Your task to perform on an android device: open chrome privacy settings Image 0: 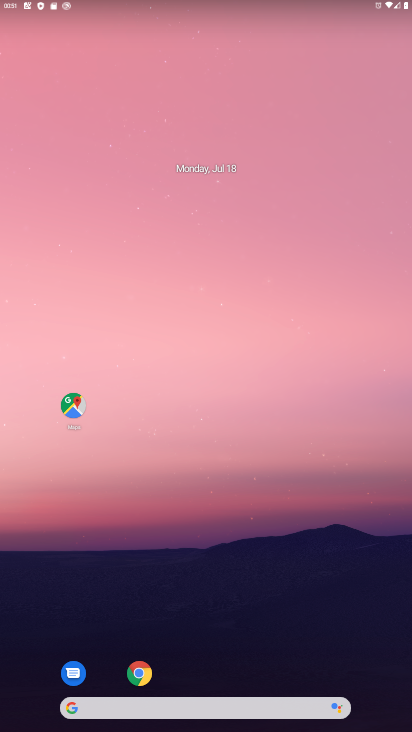
Step 0: click (149, 673)
Your task to perform on an android device: open chrome privacy settings Image 1: 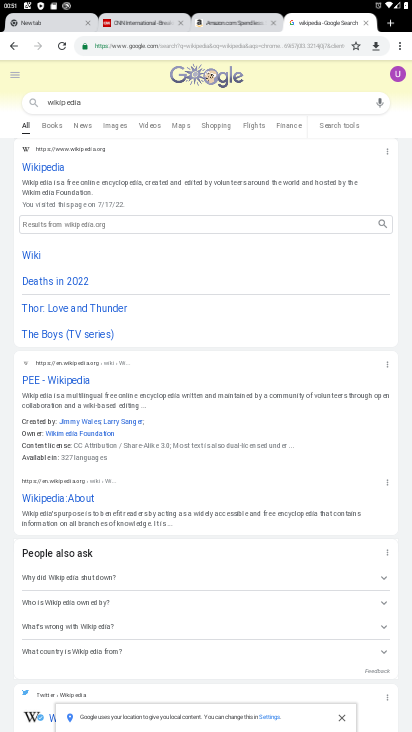
Step 1: click (400, 44)
Your task to perform on an android device: open chrome privacy settings Image 2: 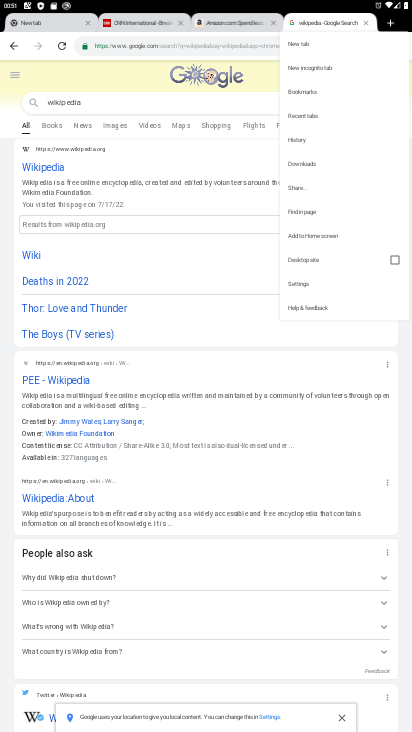
Step 2: click (316, 285)
Your task to perform on an android device: open chrome privacy settings Image 3: 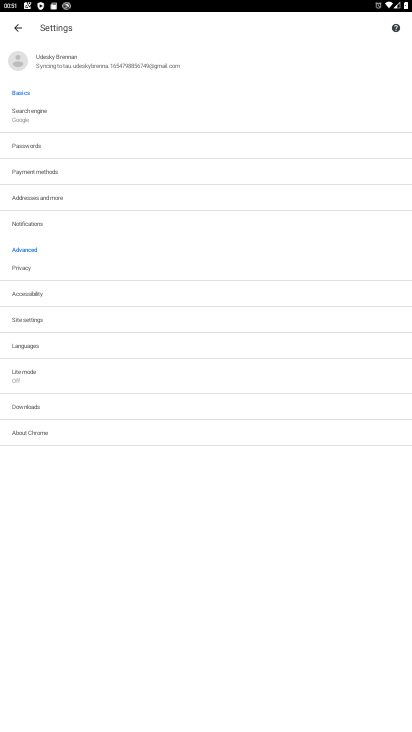
Step 3: click (83, 273)
Your task to perform on an android device: open chrome privacy settings Image 4: 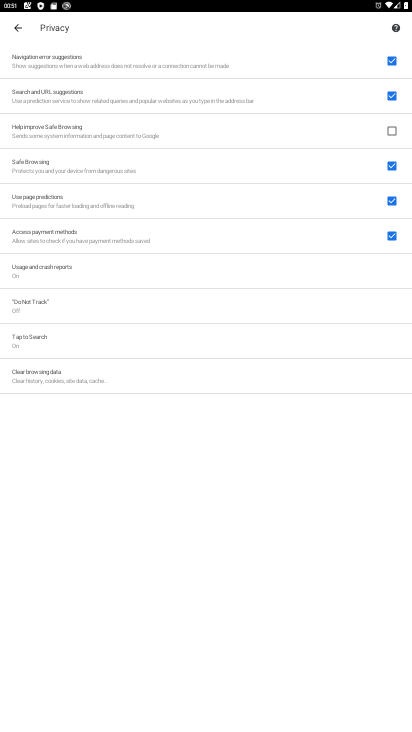
Step 4: task complete